Your task to perform on an android device: Open the calendar app, open the side menu, and click the "Day" option Image 0: 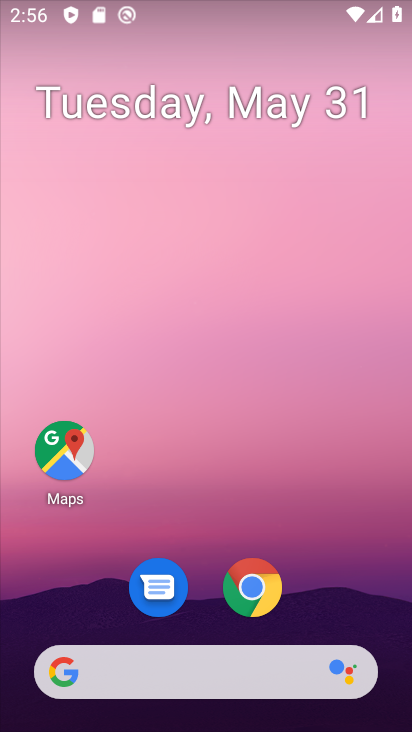
Step 0: drag from (324, 605) to (345, 0)
Your task to perform on an android device: Open the calendar app, open the side menu, and click the "Day" option Image 1: 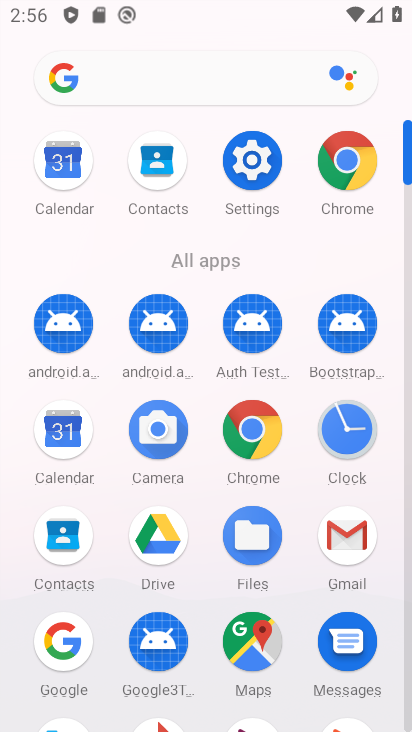
Step 1: click (74, 165)
Your task to perform on an android device: Open the calendar app, open the side menu, and click the "Day" option Image 2: 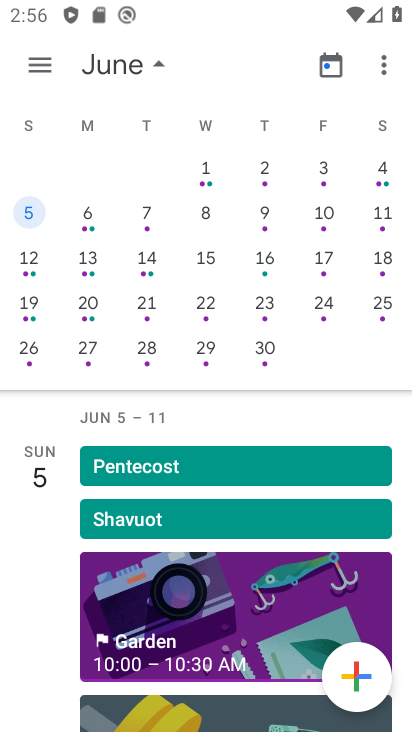
Step 2: click (44, 60)
Your task to perform on an android device: Open the calendar app, open the side menu, and click the "Day" option Image 3: 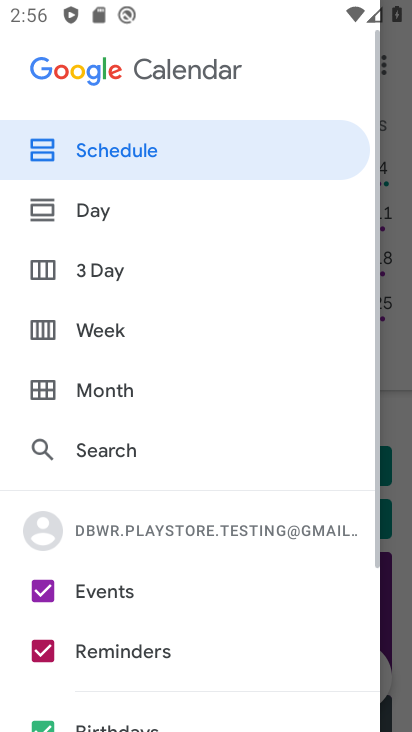
Step 3: click (115, 226)
Your task to perform on an android device: Open the calendar app, open the side menu, and click the "Day" option Image 4: 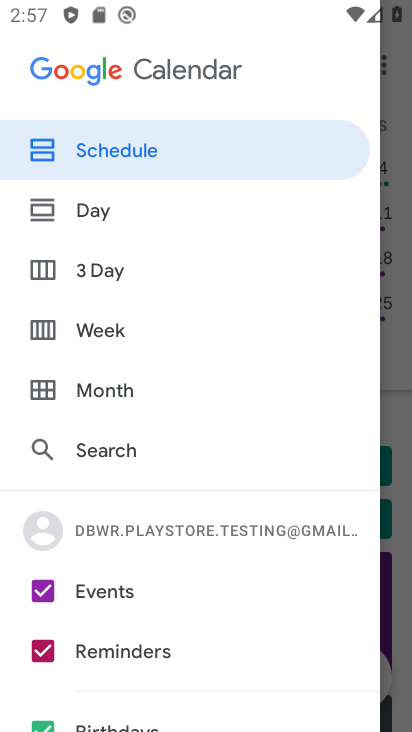
Step 4: click (110, 222)
Your task to perform on an android device: Open the calendar app, open the side menu, and click the "Day" option Image 5: 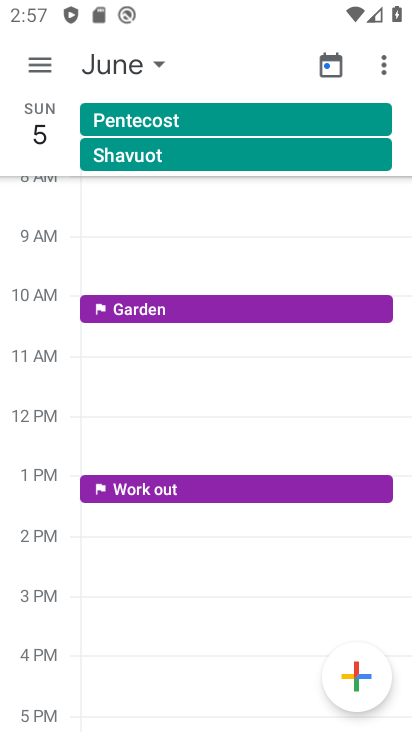
Step 5: task complete